Your task to perform on an android device: check out phone information Image 0: 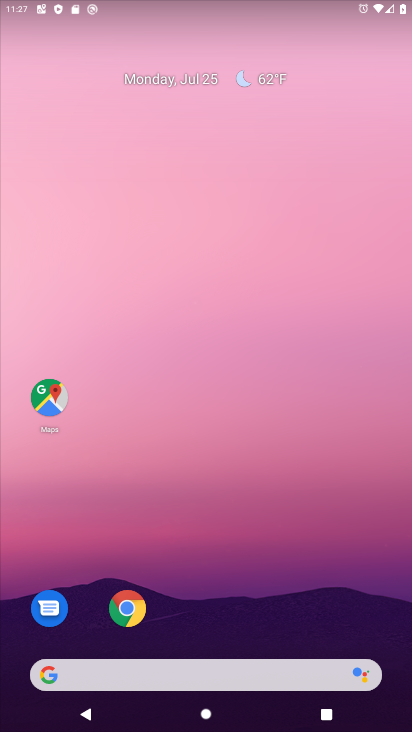
Step 0: drag from (223, 640) to (260, 8)
Your task to perform on an android device: check out phone information Image 1: 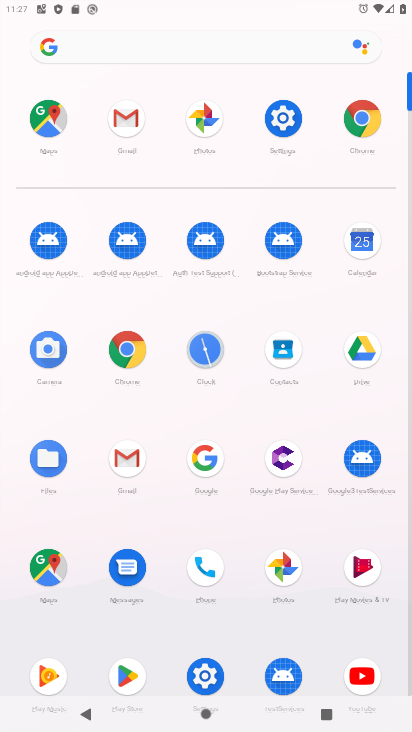
Step 1: click (205, 671)
Your task to perform on an android device: check out phone information Image 2: 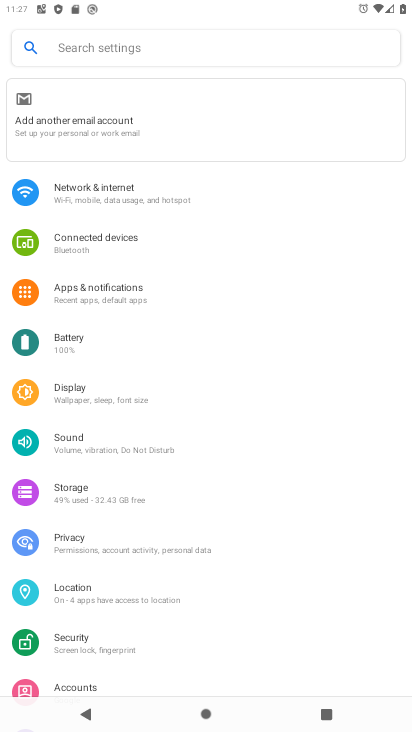
Step 2: drag from (144, 662) to (120, 268)
Your task to perform on an android device: check out phone information Image 3: 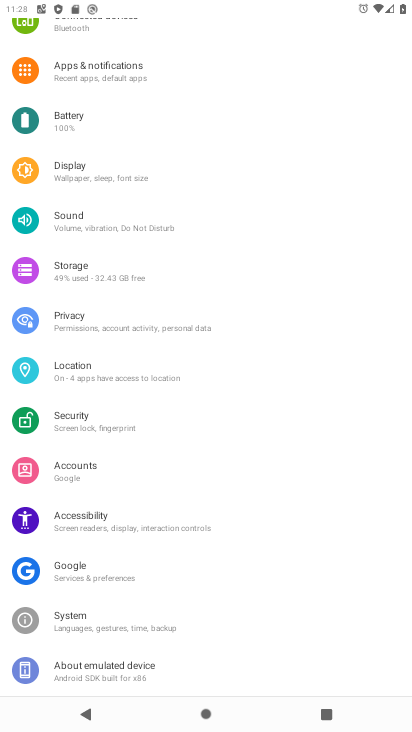
Step 3: click (98, 670)
Your task to perform on an android device: check out phone information Image 4: 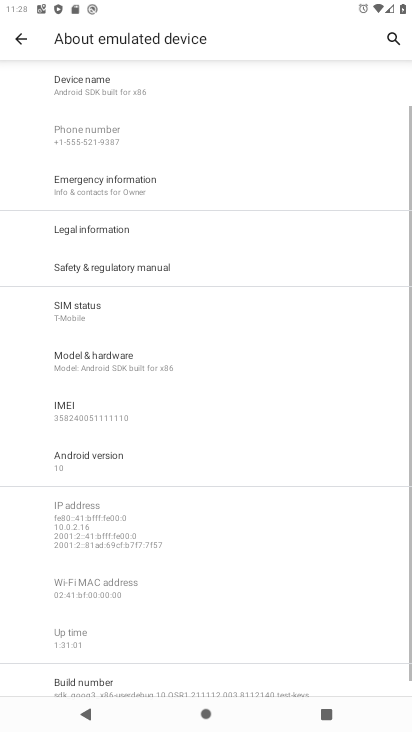
Step 4: task complete